Your task to perform on an android device: open app "Paramount+ | Peak Streaming" (install if not already installed), go to login, and select forgot password Image 0: 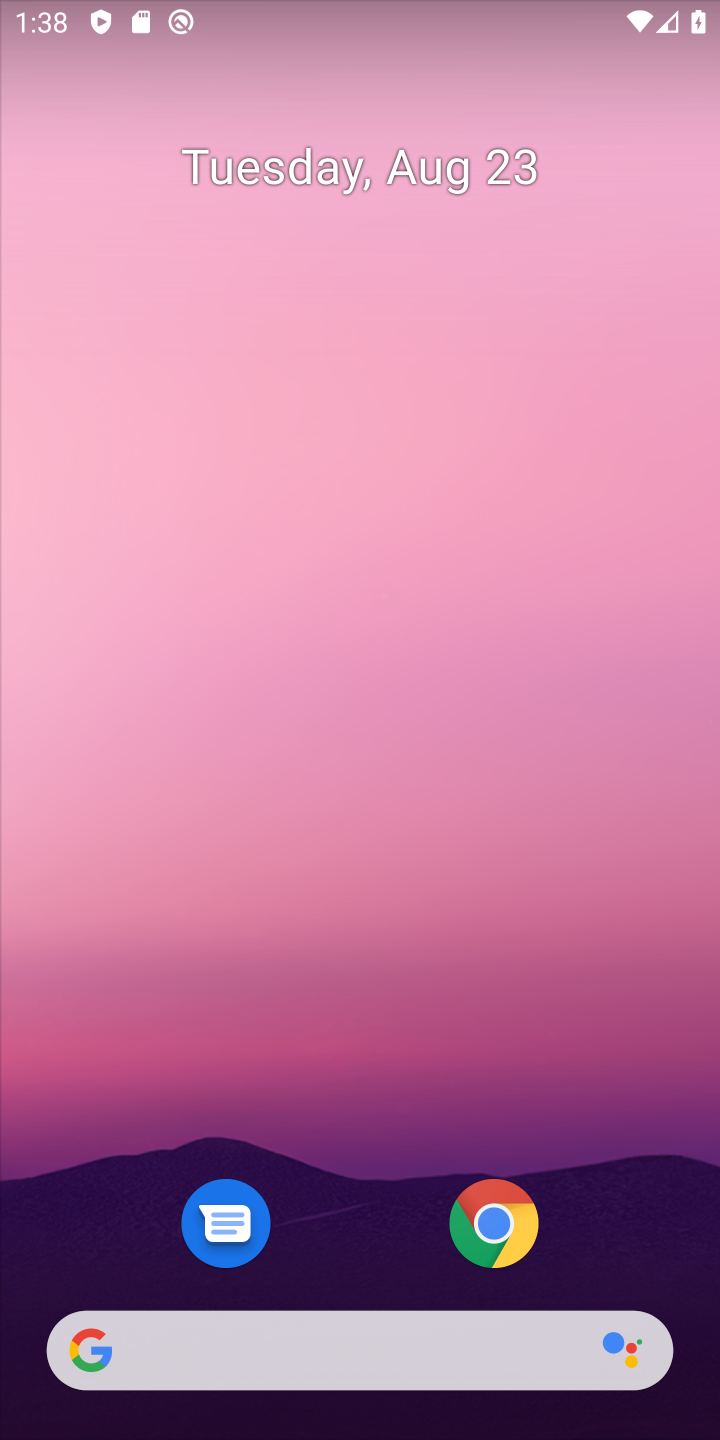
Step 0: drag from (377, 1228) to (472, 70)
Your task to perform on an android device: open app "Paramount+ | Peak Streaming" (install if not already installed), go to login, and select forgot password Image 1: 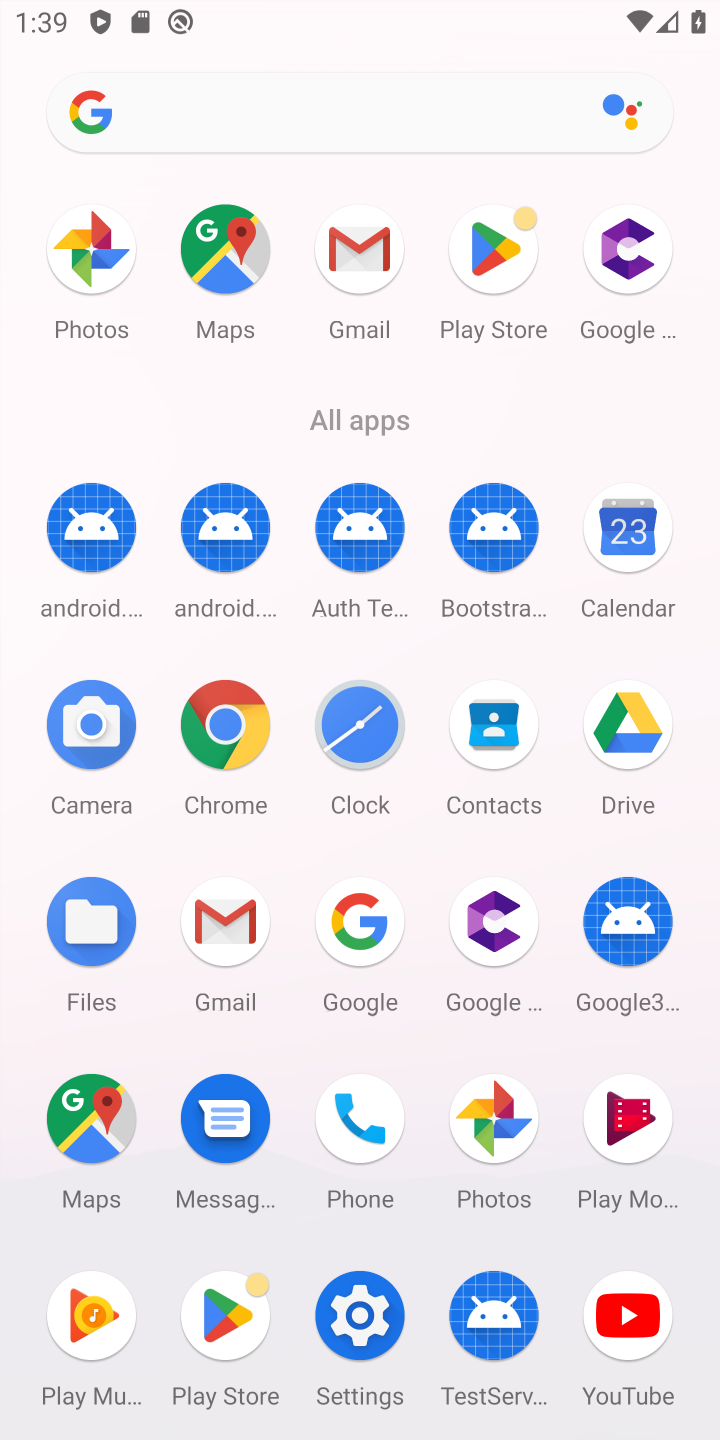
Step 1: click (515, 252)
Your task to perform on an android device: open app "Paramount+ | Peak Streaming" (install if not already installed), go to login, and select forgot password Image 2: 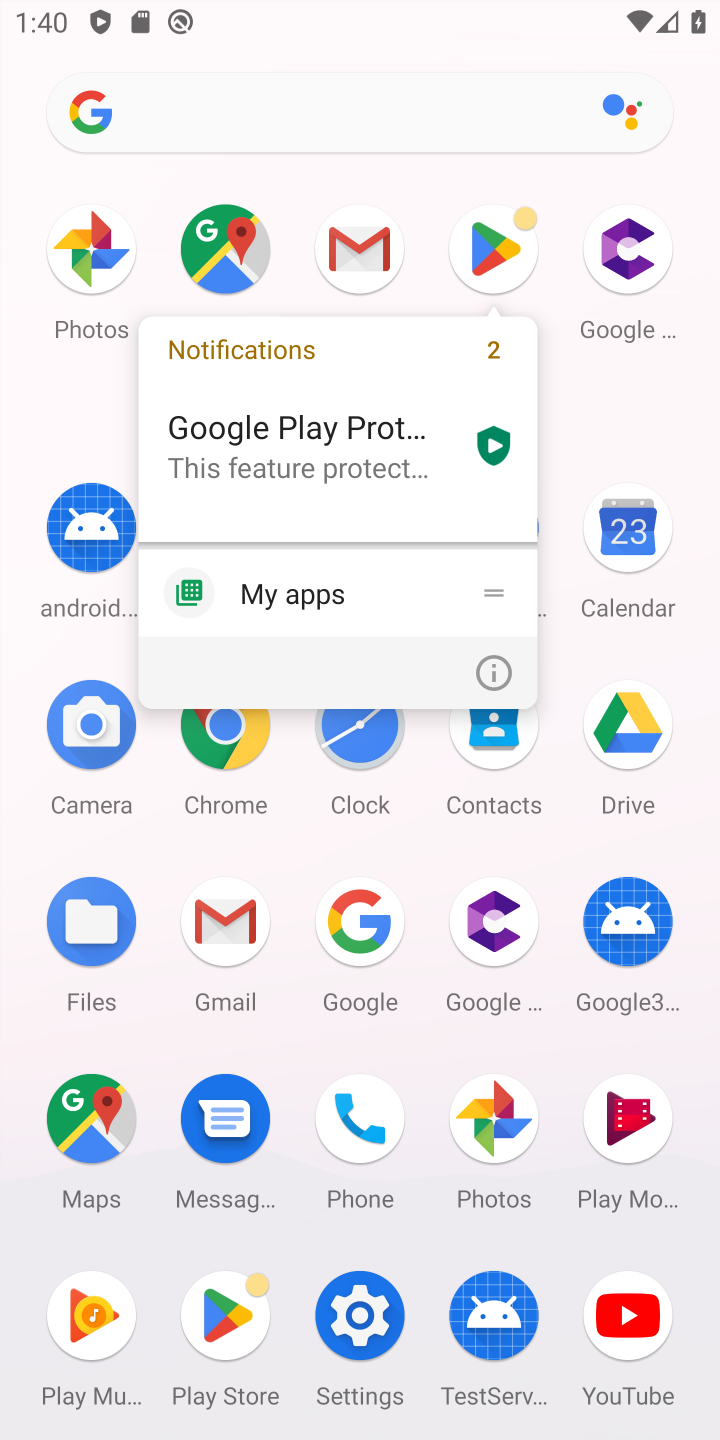
Step 2: click (484, 230)
Your task to perform on an android device: open app "Paramount+ | Peak Streaming" (install if not already installed), go to login, and select forgot password Image 3: 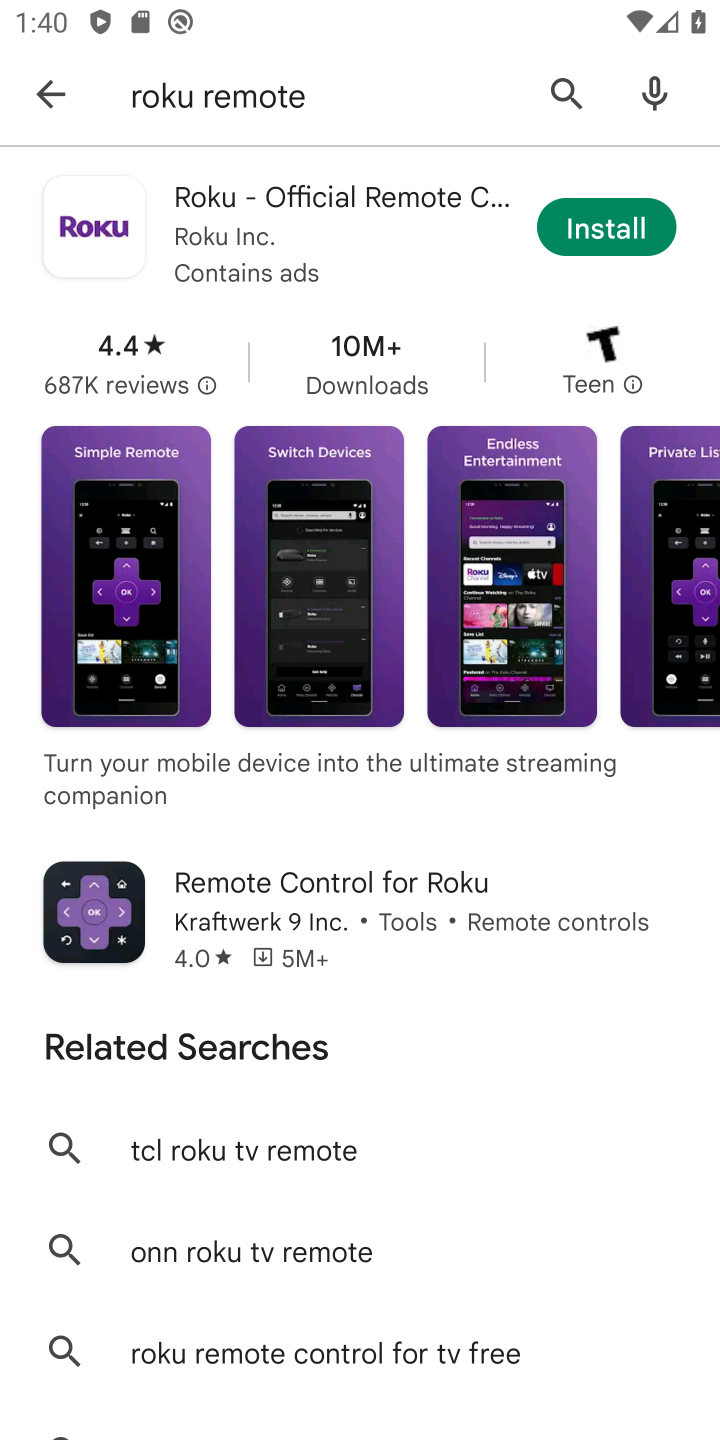
Step 3: click (565, 98)
Your task to perform on an android device: open app "Paramount+ | Peak Streaming" (install if not already installed), go to login, and select forgot password Image 4: 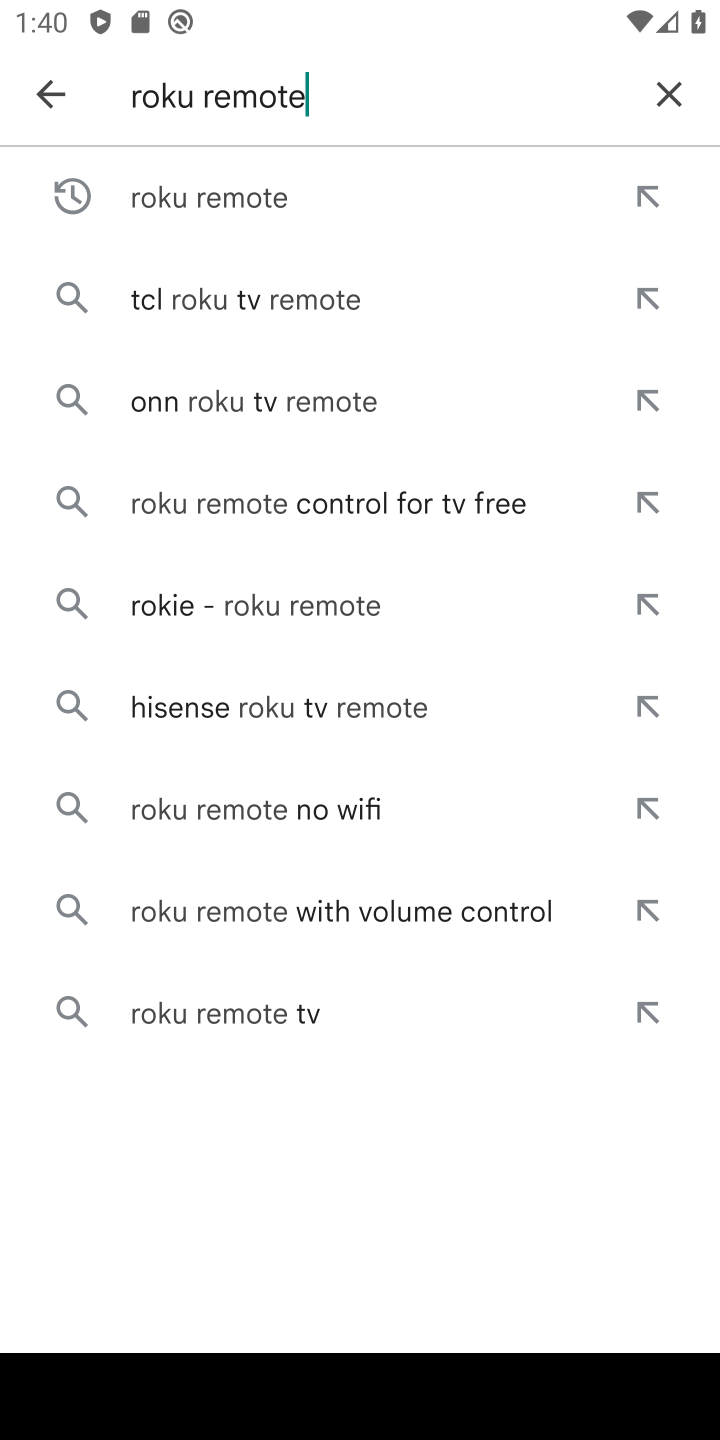
Step 4: click (675, 88)
Your task to perform on an android device: open app "Paramount+ | Peak Streaming" (install if not already installed), go to login, and select forgot password Image 5: 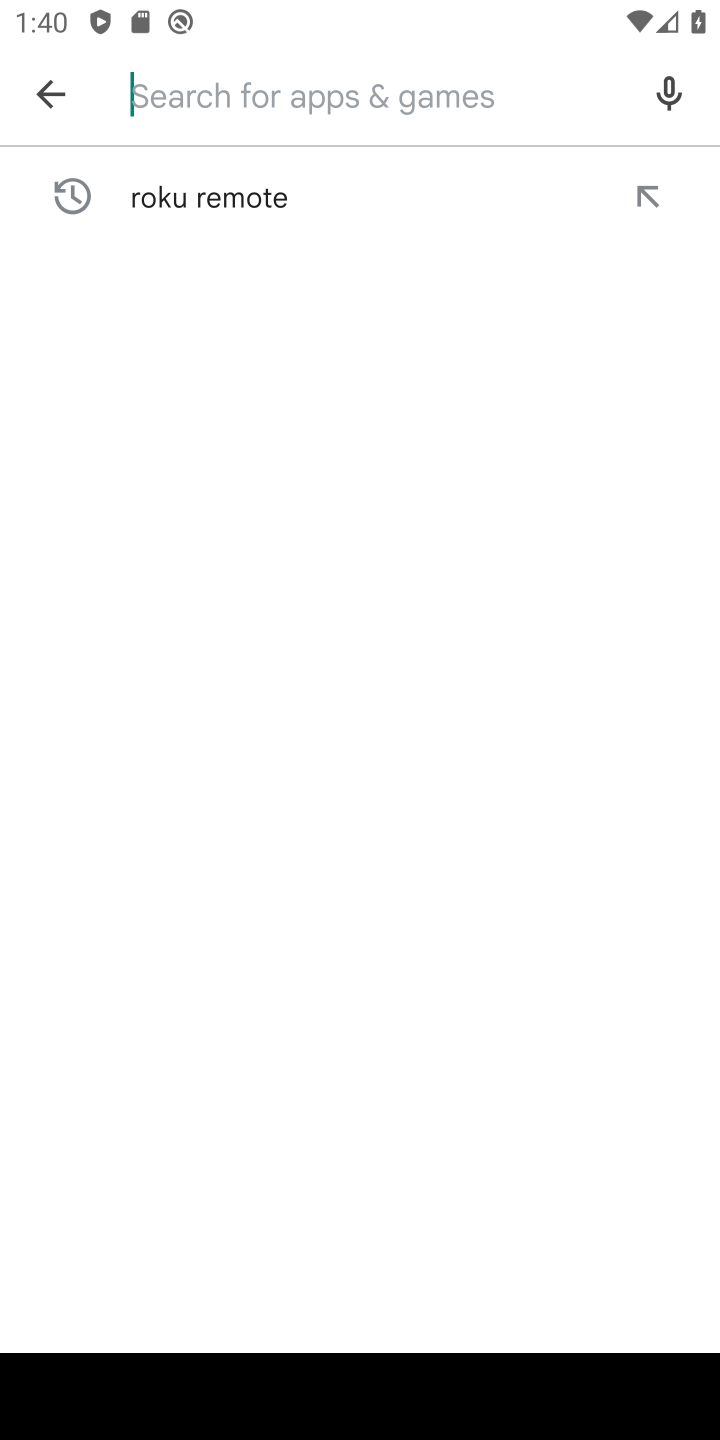
Step 5: click (192, 111)
Your task to perform on an android device: open app "Paramount+ | Peak Streaming" (install if not already installed), go to login, and select forgot password Image 6: 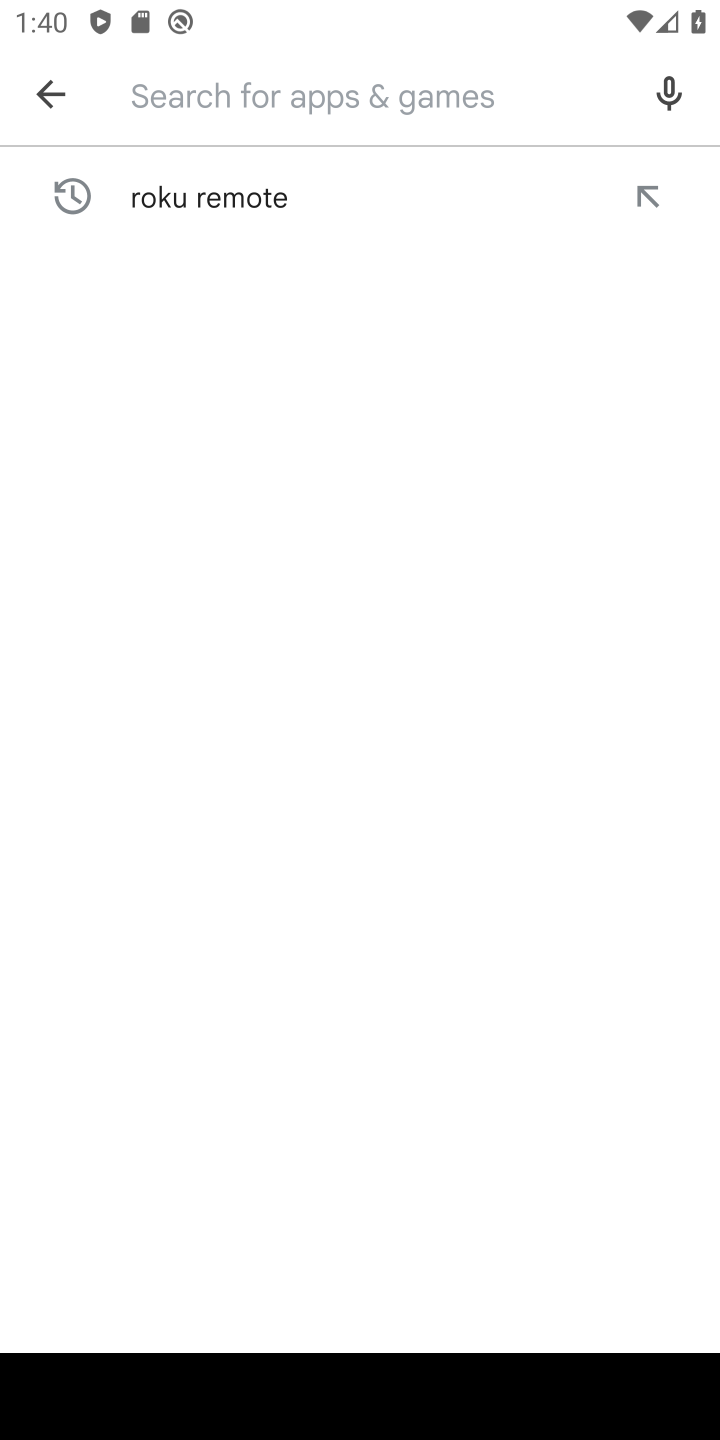
Step 6: type "Paramount+"
Your task to perform on an android device: open app "Paramount+ | Peak Streaming" (install if not already installed), go to login, and select forgot password Image 7: 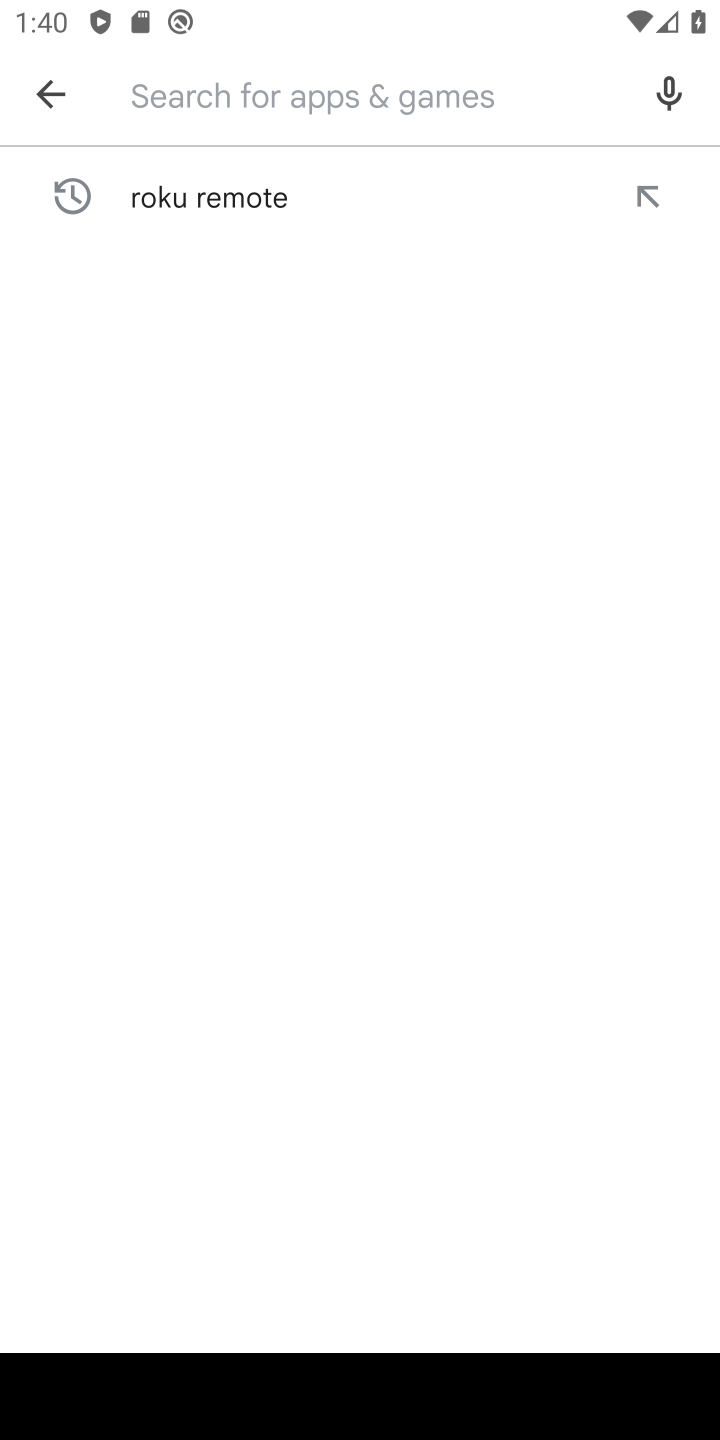
Step 7: click (491, 986)
Your task to perform on an android device: open app "Paramount+ | Peak Streaming" (install if not already installed), go to login, and select forgot password Image 8: 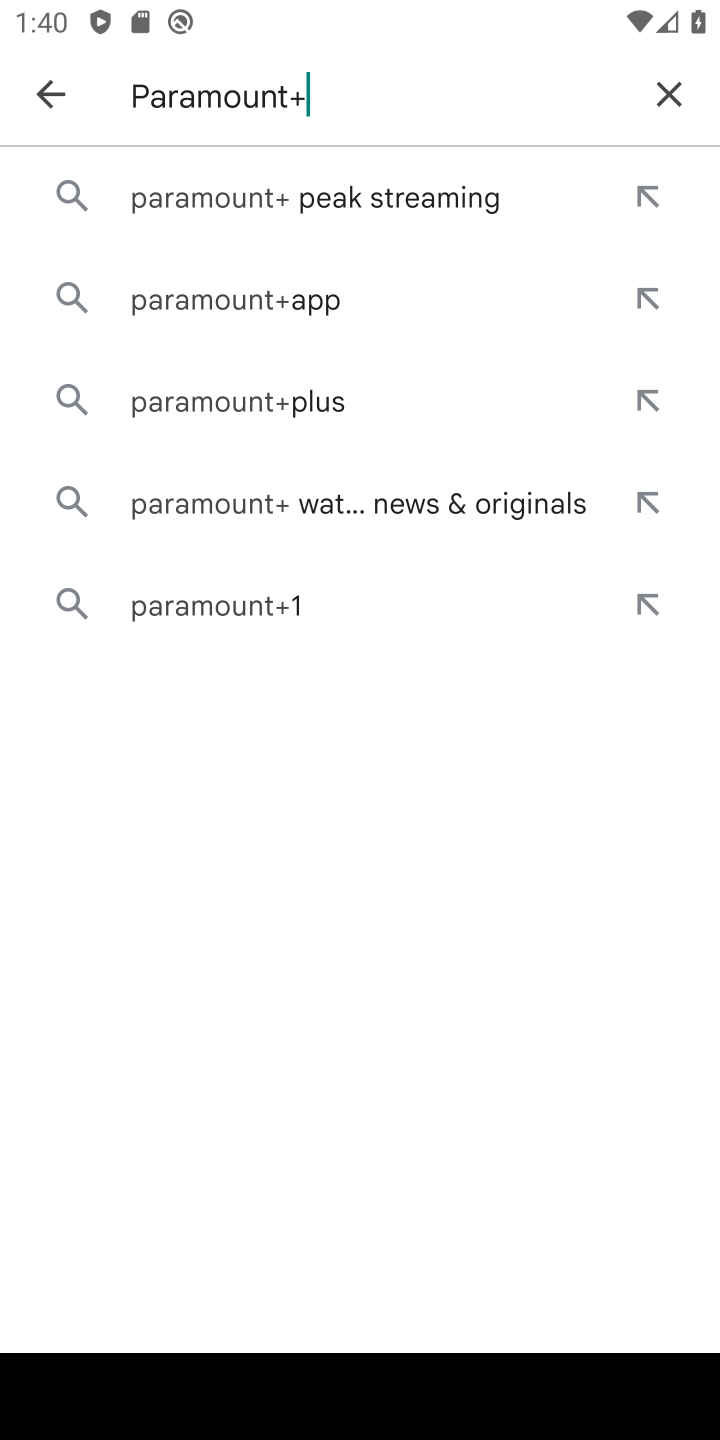
Step 8: click (311, 187)
Your task to perform on an android device: open app "Paramount+ | Peak Streaming" (install if not already installed), go to login, and select forgot password Image 9: 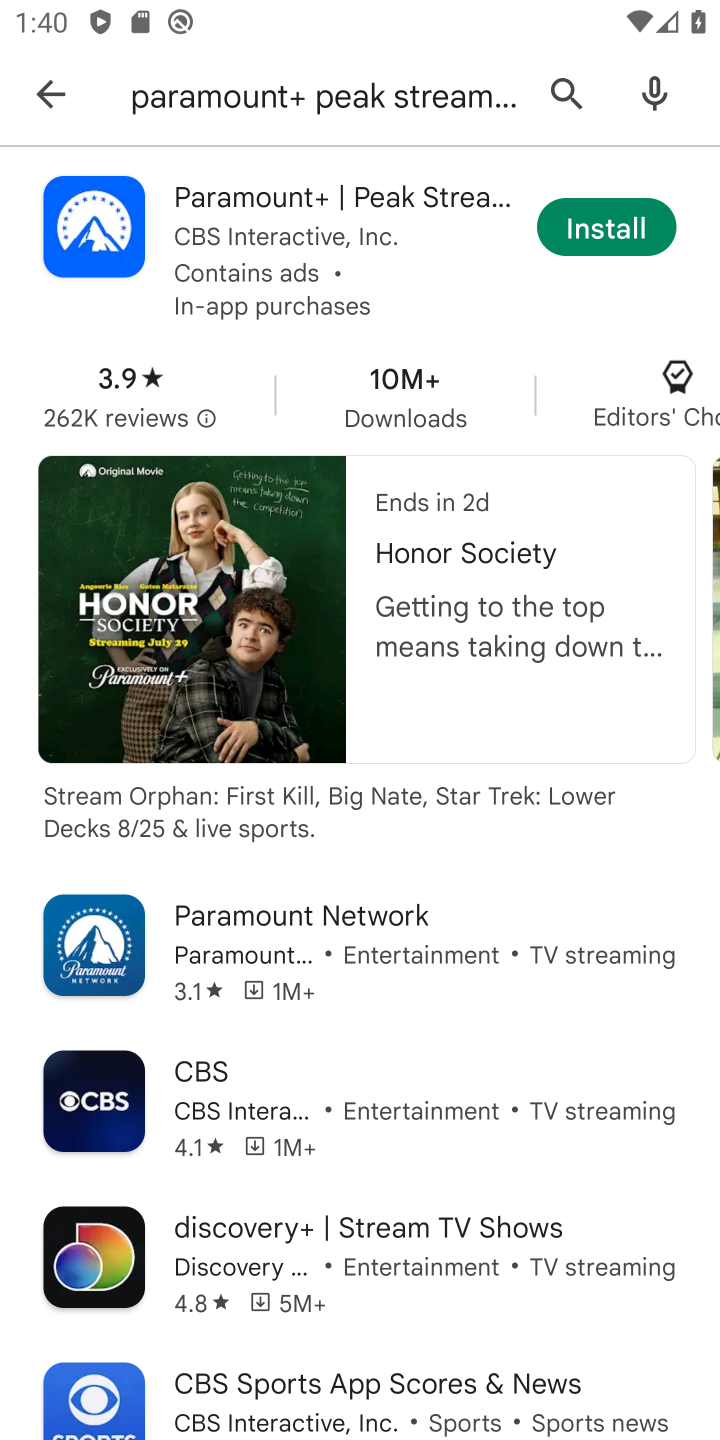
Step 9: click (612, 215)
Your task to perform on an android device: open app "Paramount+ | Peak Streaming" (install if not already installed), go to login, and select forgot password Image 10: 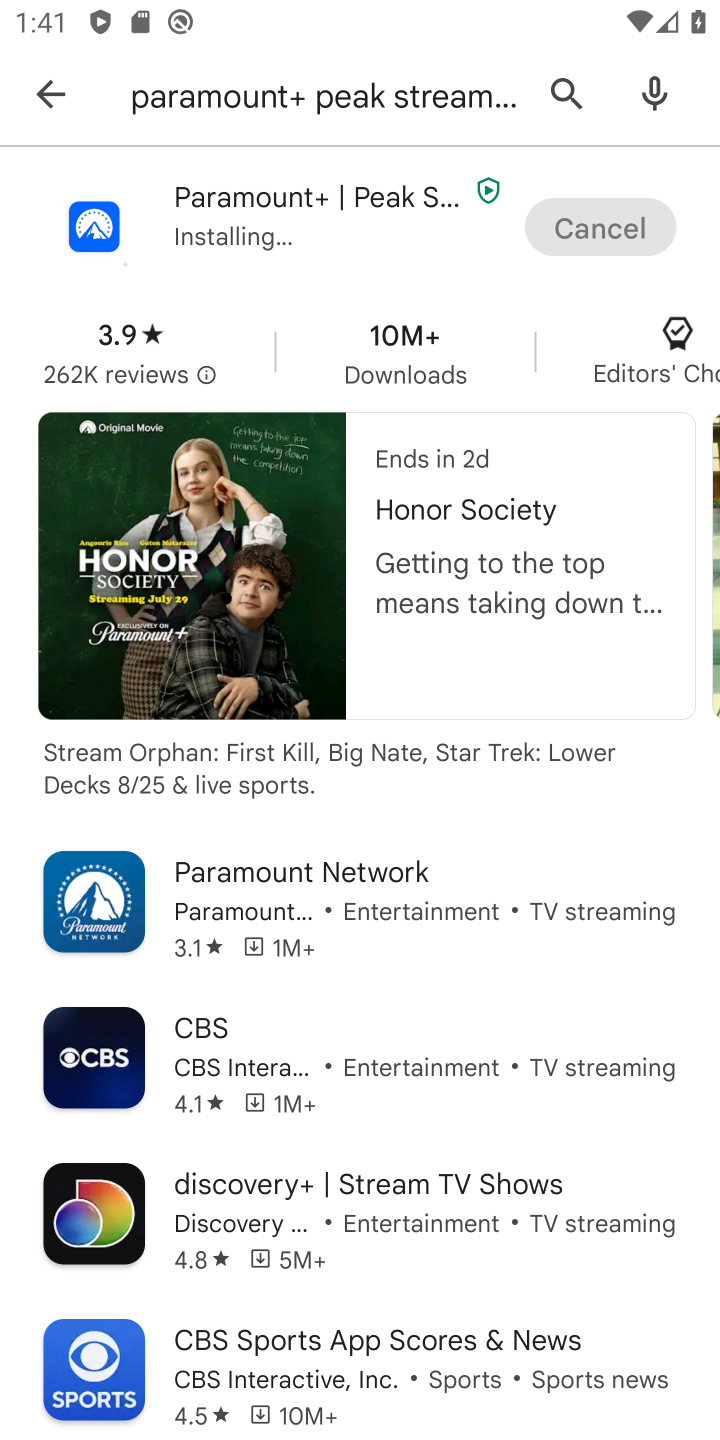
Step 10: press back button
Your task to perform on an android device: open app "Paramount+ | Peak Streaming" (install if not already installed), go to login, and select forgot password Image 11: 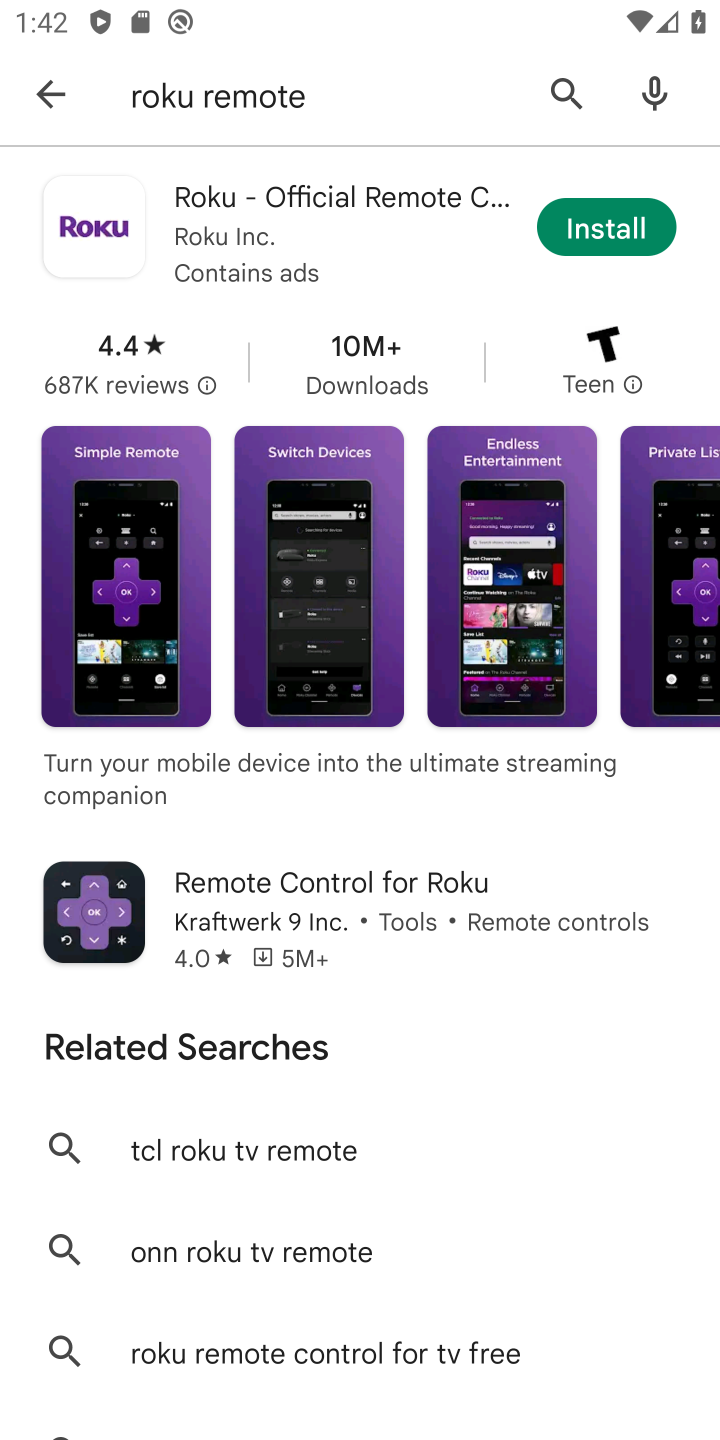
Step 11: click (576, 85)
Your task to perform on an android device: open app "Paramount+ | Peak Streaming" (install if not already installed), go to login, and select forgot password Image 12: 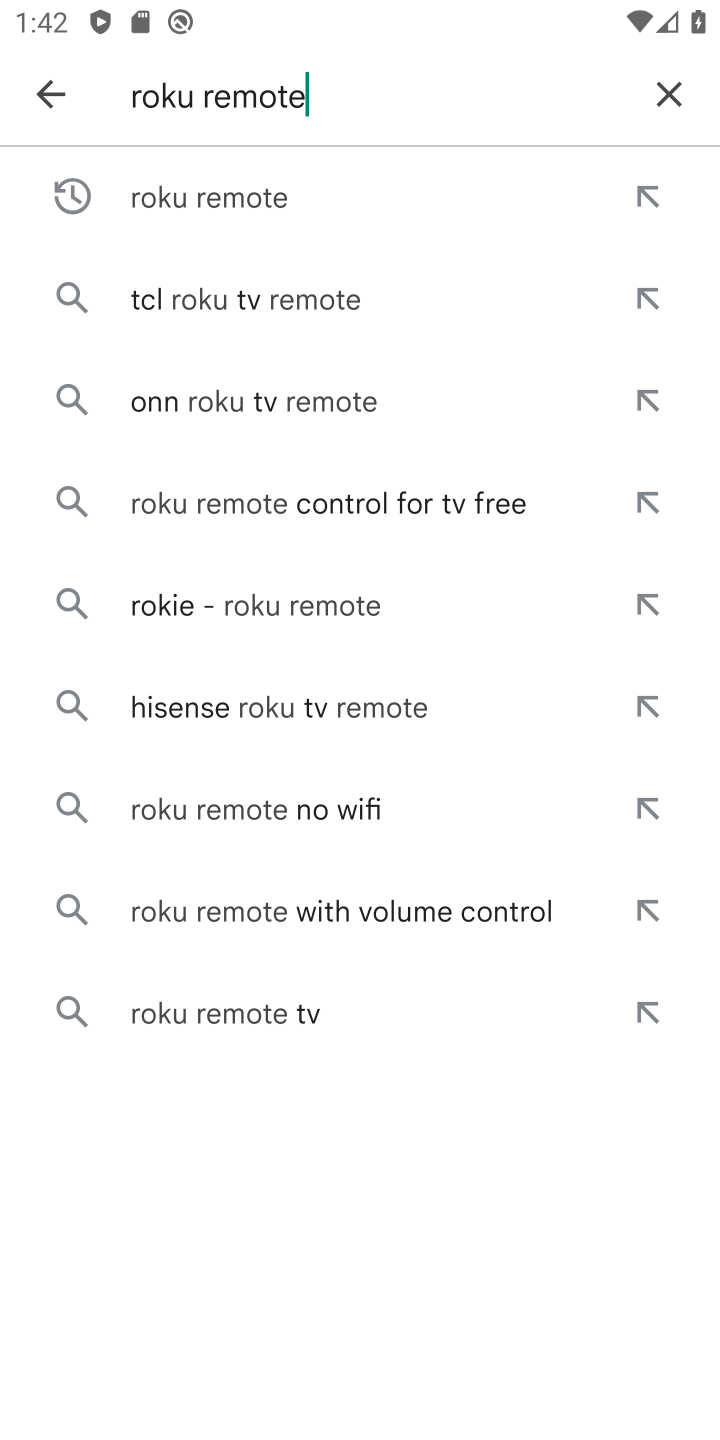
Step 12: click (667, 89)
Your task to perform on an android device: open app "Paramount+ | Peak Streaming" (install if not already installed), go to login, and select forgot password Image 13: 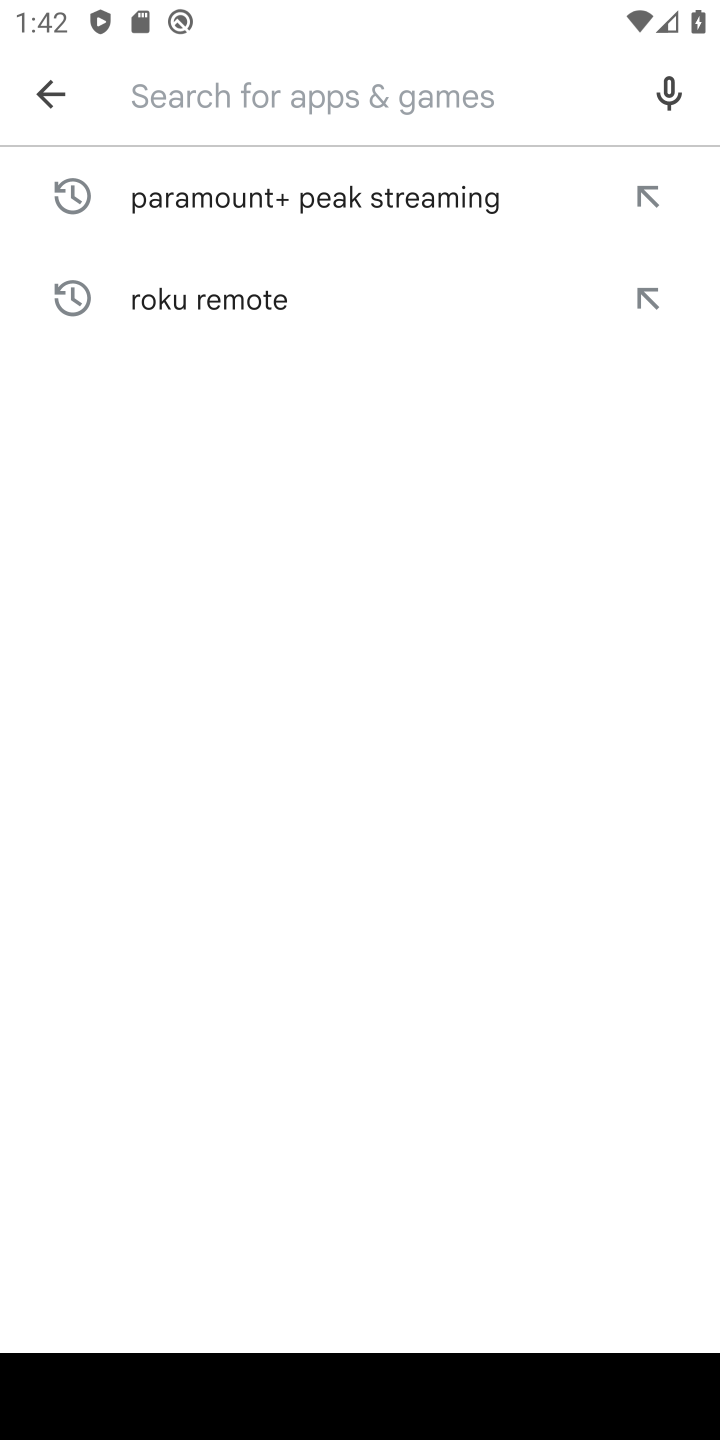
Step 13: click (236, 84)
Your task to perform on an android device: open app "Paramount+ | Peak Streaming" (install if not already installed), go to login, and select forgot password Image 14: 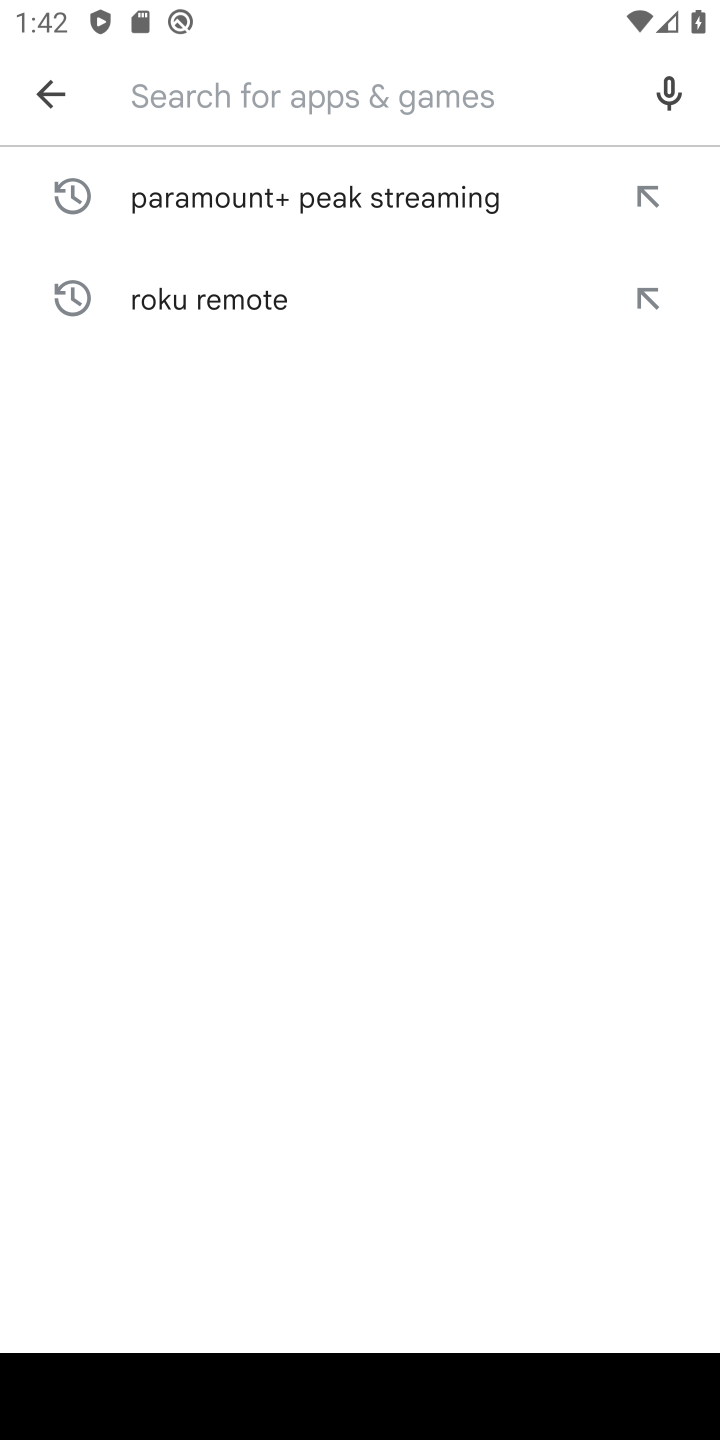
Step 14: type "Paramount+"
Your task to perform on an android device: open app "Paramount+ | Peak Streaming" (install if not already installed), go to login, and select forgot password Image 15: 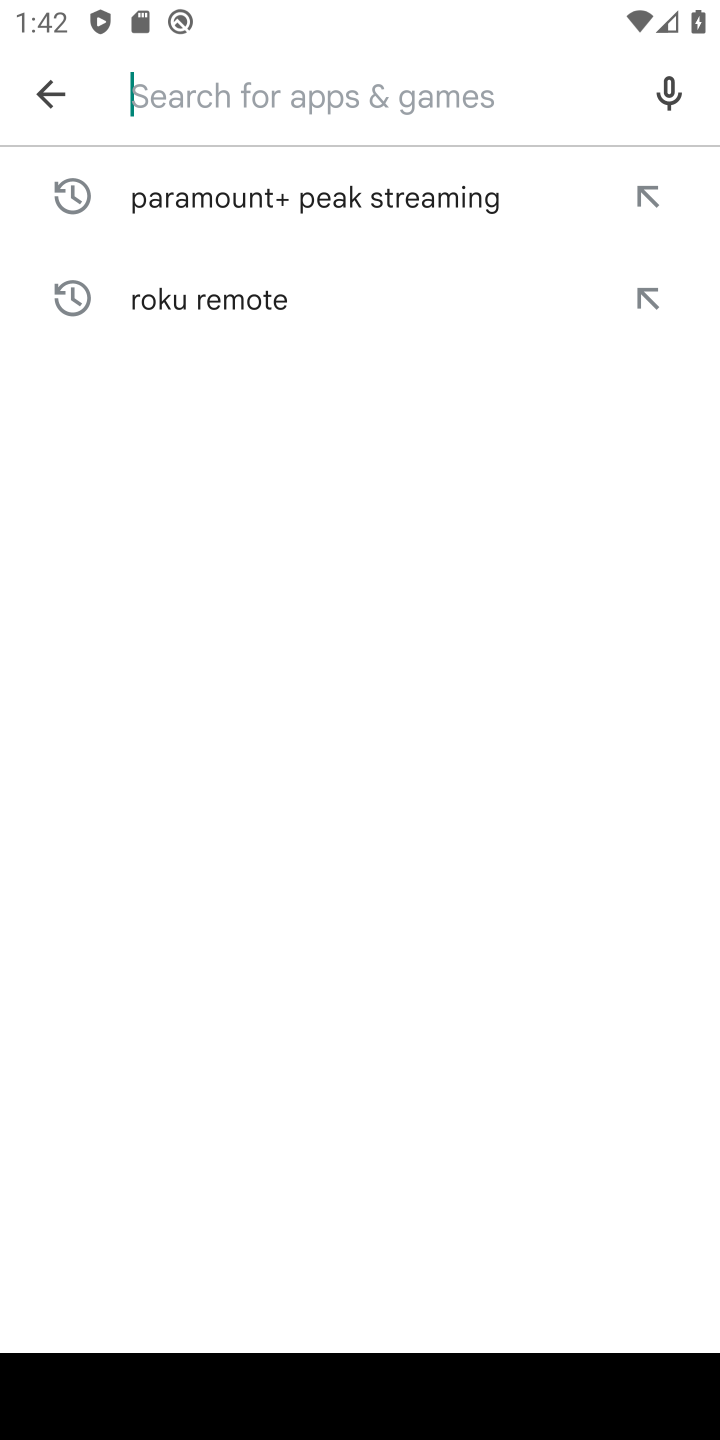
Step 15: click (365, 900)
Your task to perform on an android device: open app "Paramount+ | Peak Streaming" (install if not already installed), go to login, and select forgot password Image 16: 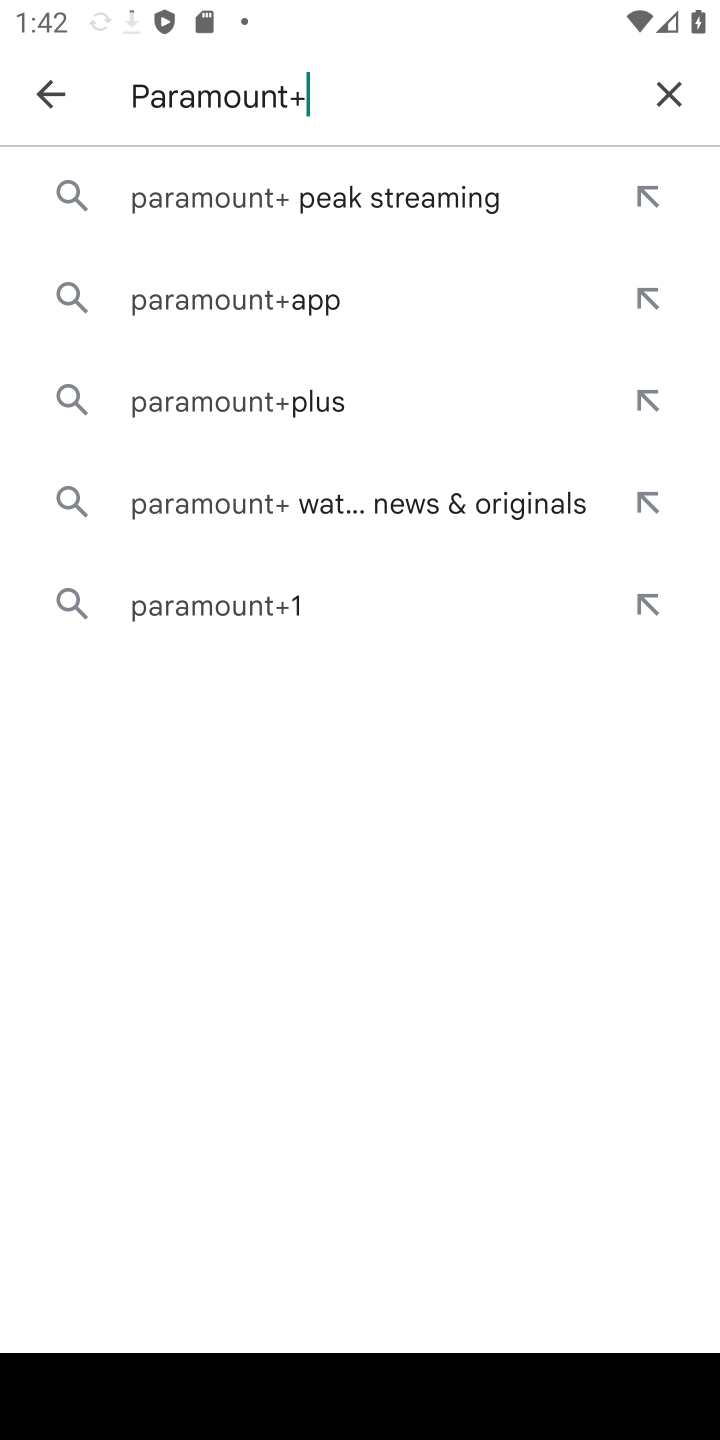
Step 16: click (334, 209)
Your task to perform on an android device: open app "Paramount+ | Peak Streaming" (install if not already installed), go to login, and select forgot password Image 17: 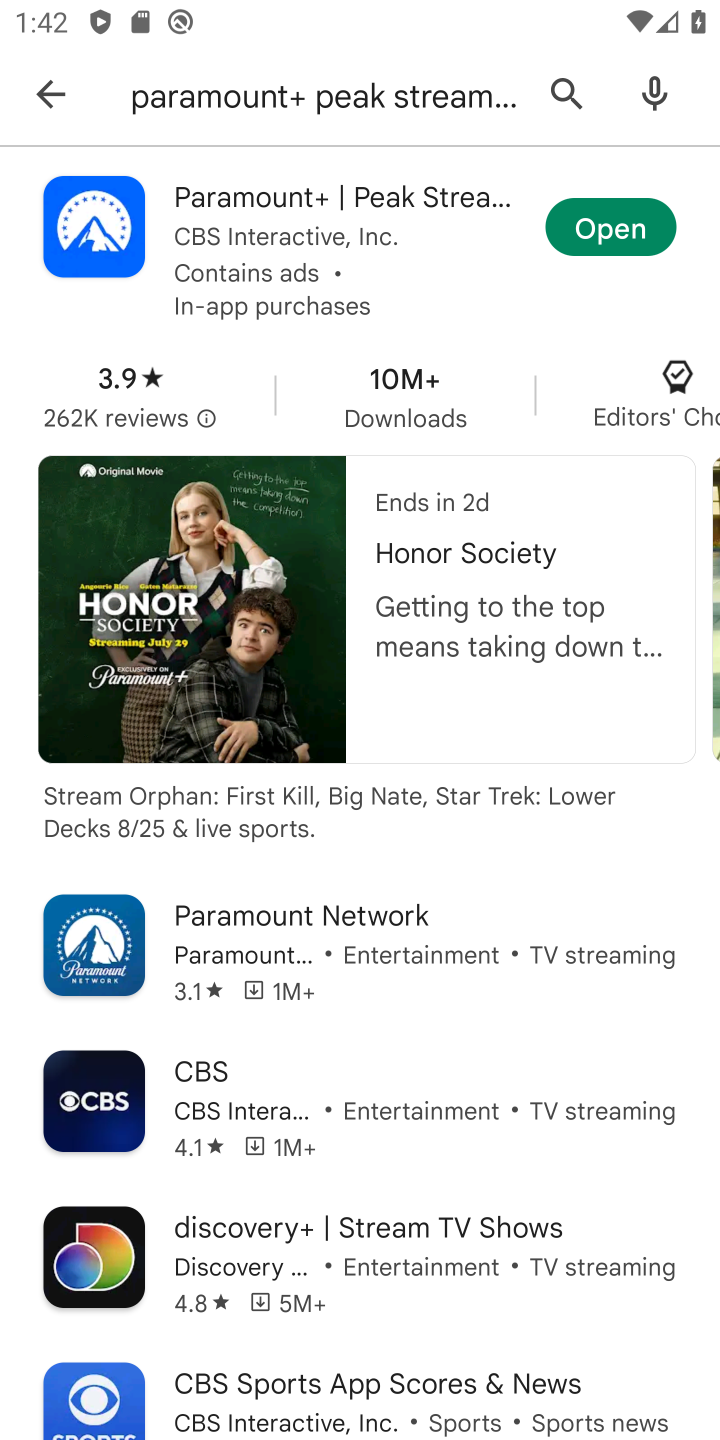
Step 17: click (636, 205)
Your task to perform on an android device: open app "Paramount+ | Peak Streaming" (install if not already installed), go to login, and select forgot password Image 18: 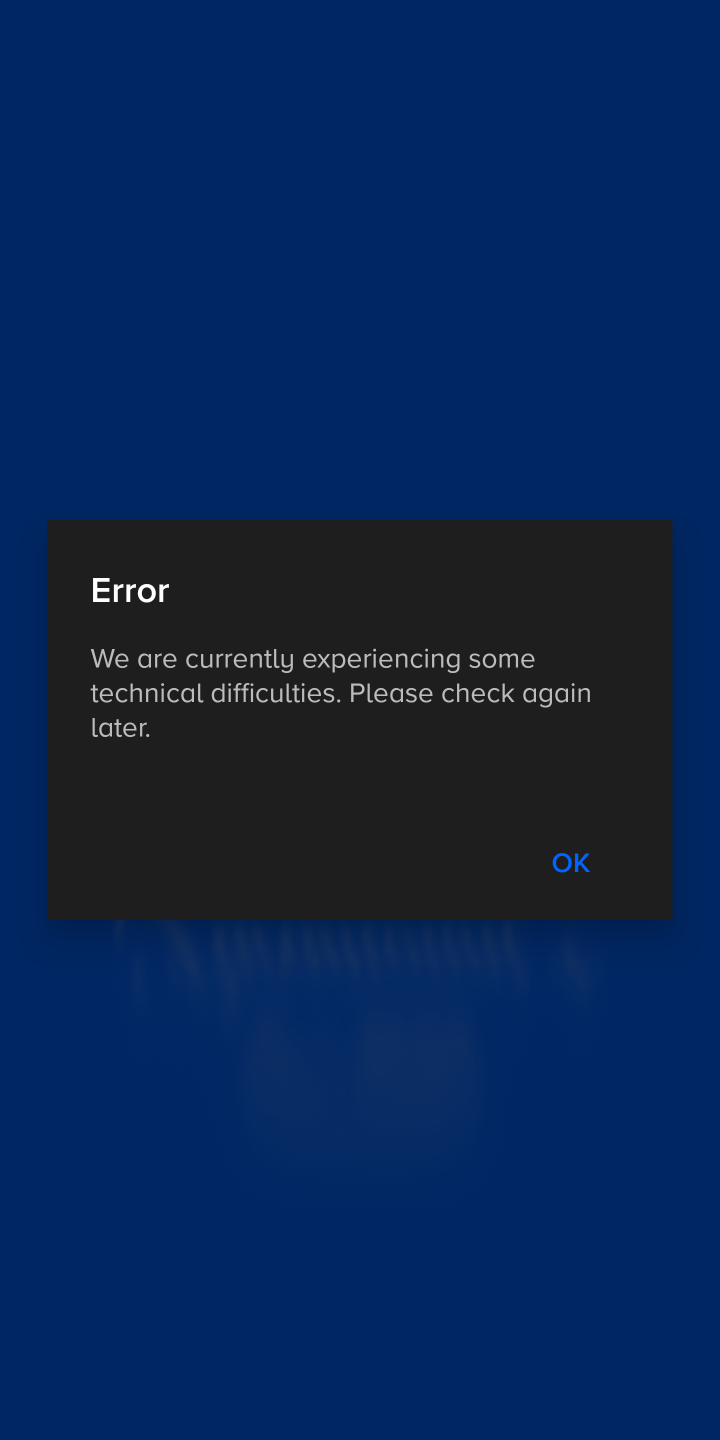
Step 18: task complete